Your task to perform on an android device: allow cookies in the chrome app Image 0: 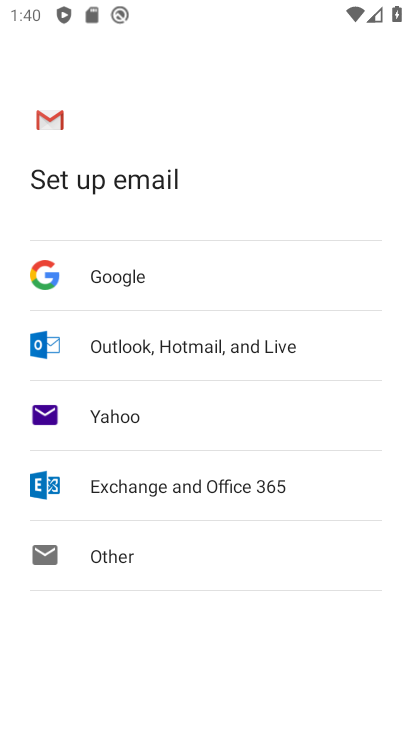
Step 0: press home button
Your task to perform on an android device: allow cookies in the chrome app Image 1: 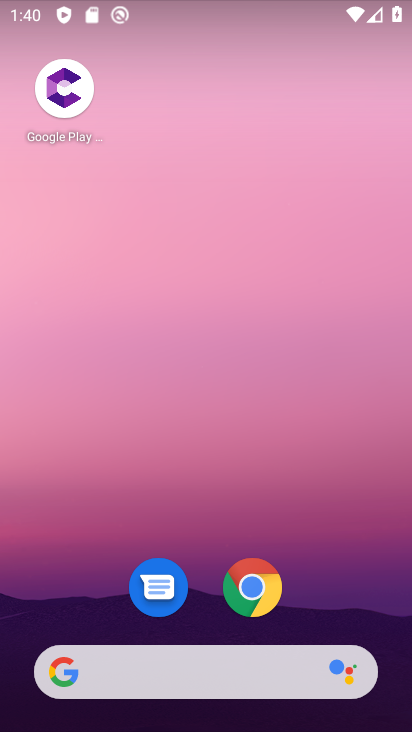
Step 1: drag from (347, 615) to (325, 141)
Your task to perform on an android device: allow cookies in the chrome app Image 2: 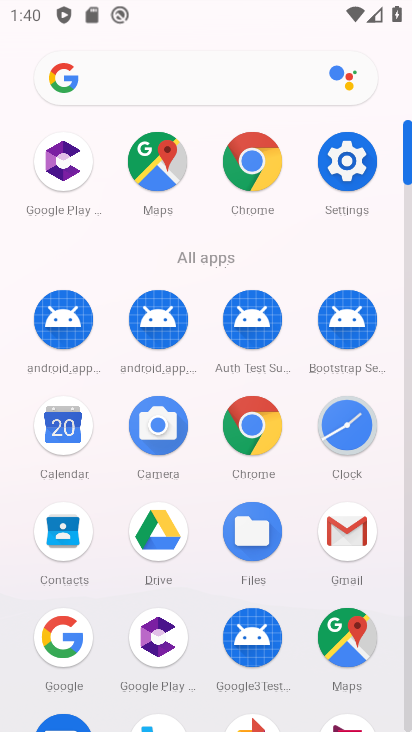
Step 2: click (253, 407)
Your task to perform on an android device: allow cookies in the chrome app Image 3: 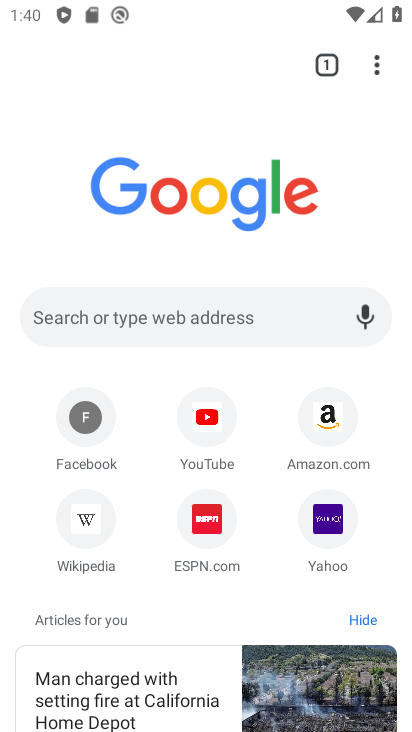
Step 3: click (373, 59)
Your task to perform on an android device: allow cookies in the chrome app Image 4: 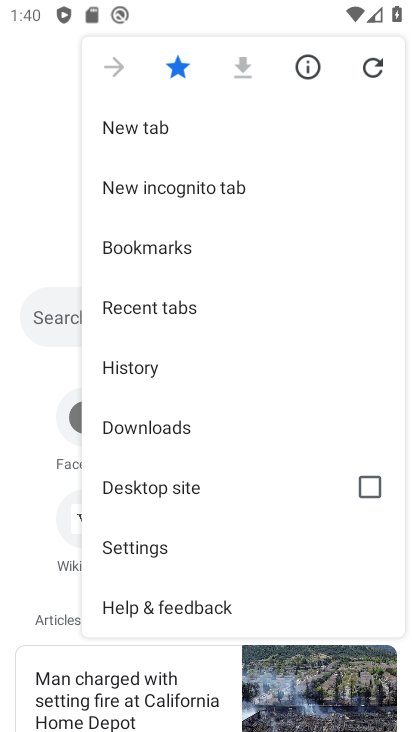
Step 4: drag from (188, 569) to (220, 277)
Your task to perform on an android device: allow cookies in the chrome app Image 5: 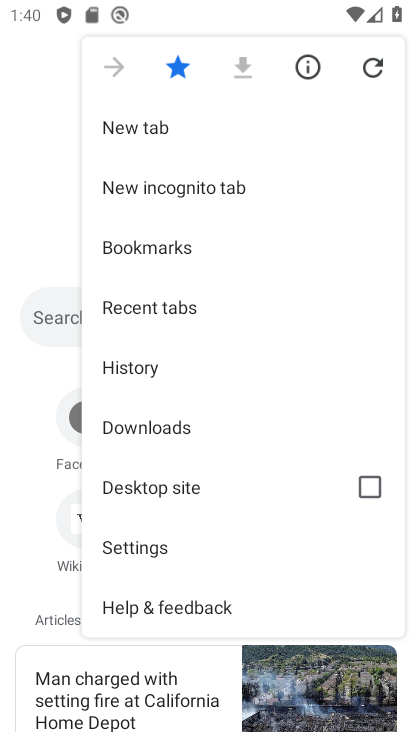
Step 5: click (227, 542)
Your task to perform on an android device: allow cookies in the chrome app Image 6: 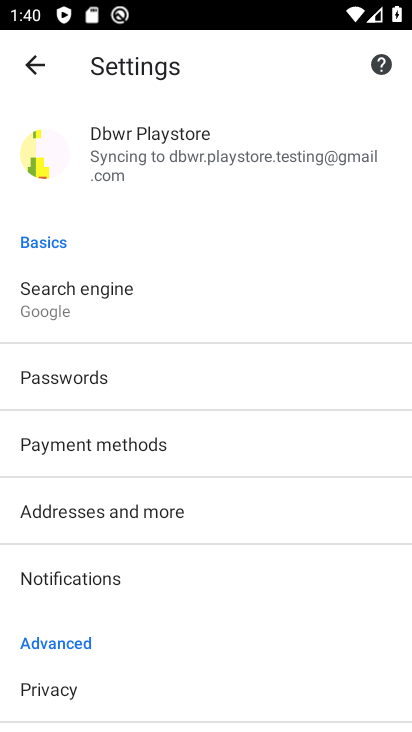
Step 6: drag from (241, 610) to (273, 247)
Your task to perform on an android device: allow cookies in the chrome app Image 7: 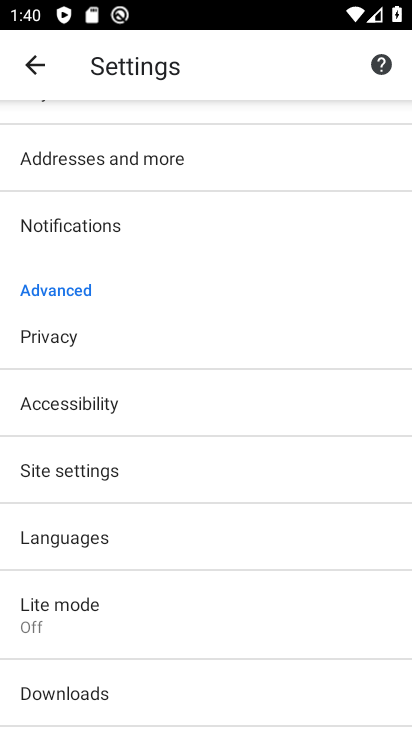
Step 7: click (246, 463)
Your task to perform on an android device: allow cookies in the chrome app Image 8: 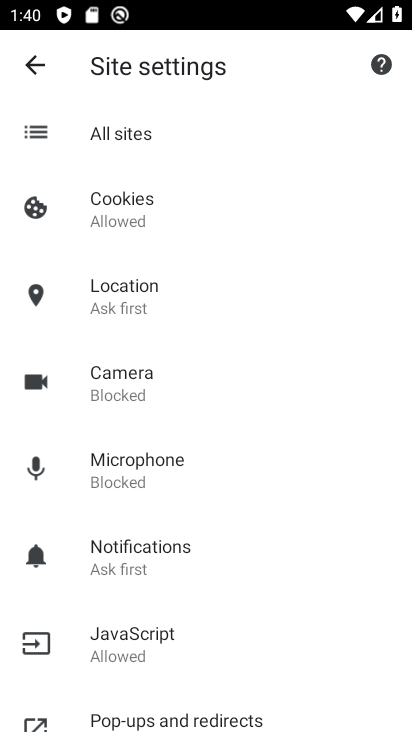
Step 8: click (256, 246)
Your task to perform on an android device: allow cookies in the chrome app Image 9: 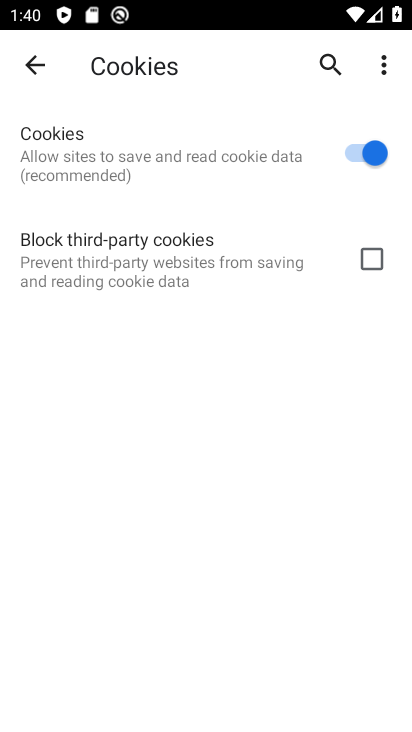
Step 9: task complete